Your task to perform on an android device: change the clock display to show seconds Image 0: 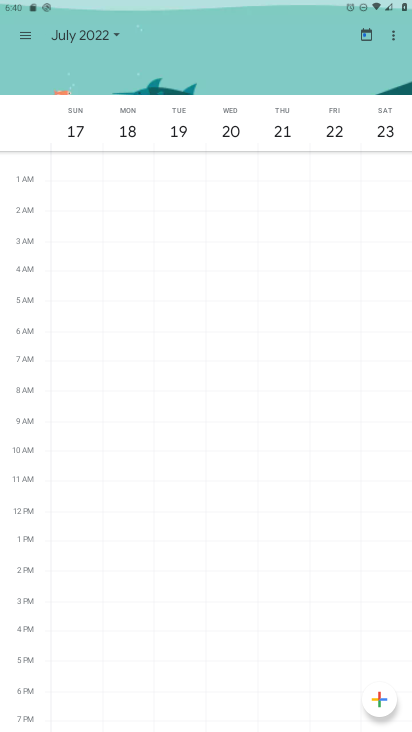
Step 0: press home button
Your task to perform on an android device: change the clock display to show seconds Image 1: 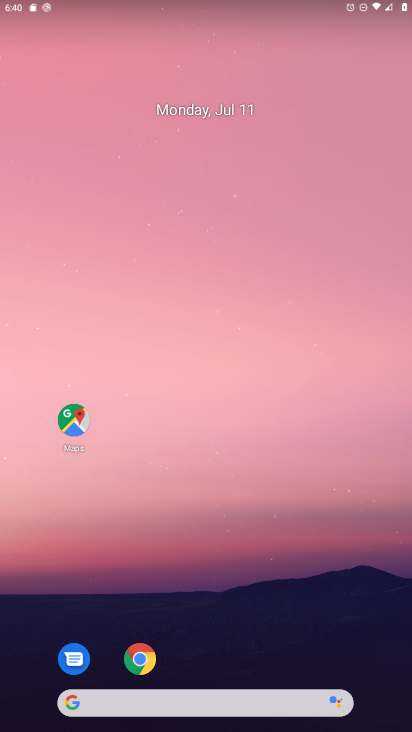
Step 1: drag from (384, 650) to (346, 53)
Your task to perform on an android device: change the clock display to show seconds Image 2: 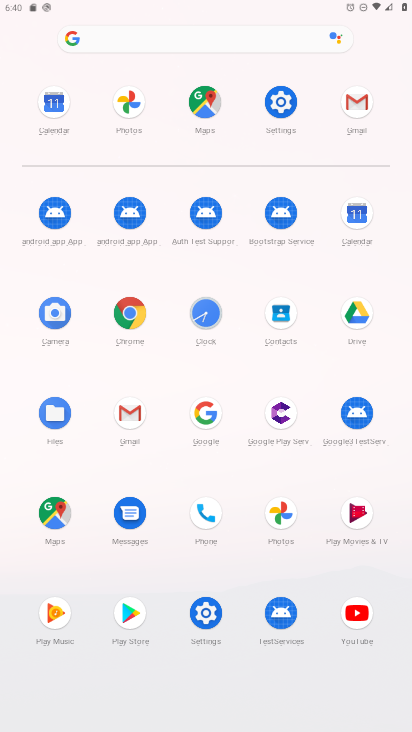
Step 2: click (206, 313)
Your task to perform on an android device: change the clock display to show seconds Image 3: 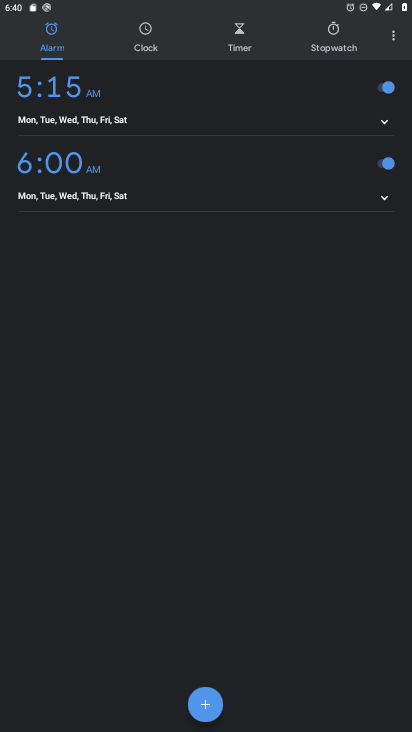
Step 3: click (392, 42)
Your task to perform on an android device: change the clock display to show seconds Image 4: 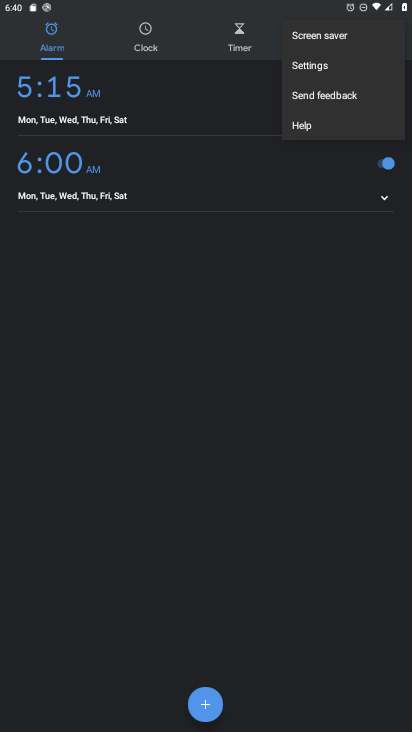
Step 4: click (311, 65)
Your task to perform on an android device: change the clock display to show seconds Image 5: 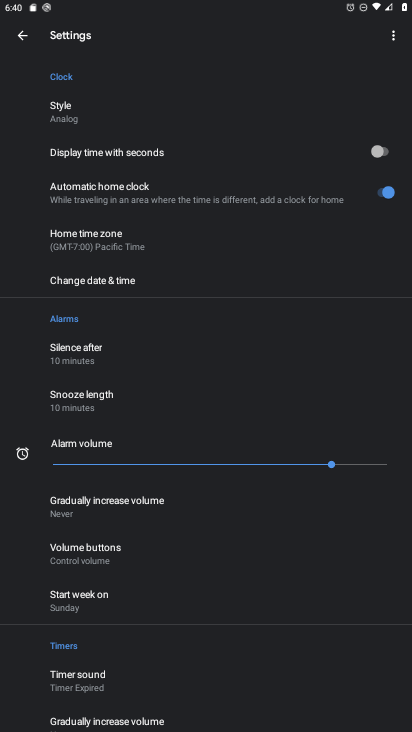
Step 5: click (386, 153)
Your task to perform on an android device: change the clock display to show seconds Image 6: 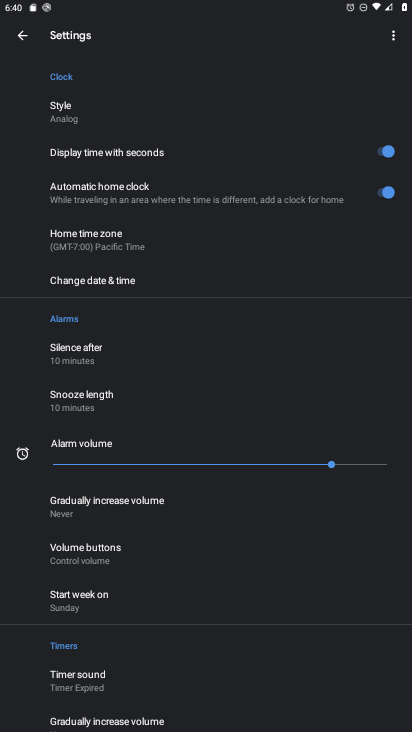
Step 6: task complete